Your task to perform on an android device: Go to display settings Image 0: 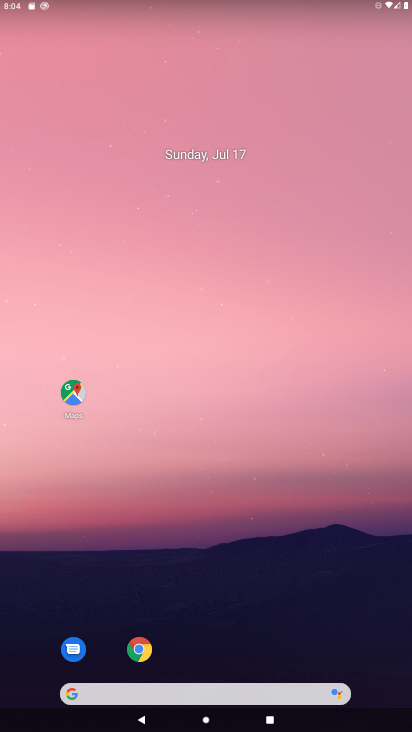
Step 0: drag from (197, 658) to (278, 0)
Your task to perform on an android device: Go to display settings Image 1: 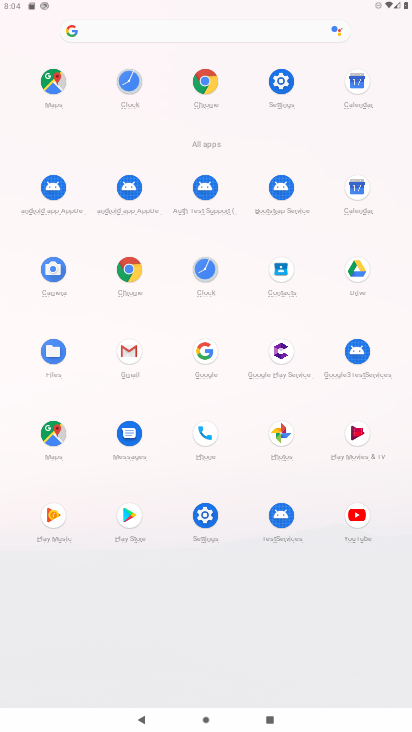
Step 1: click (272, 123)
Your task to perform on an android device: Go to display settings Image 2: 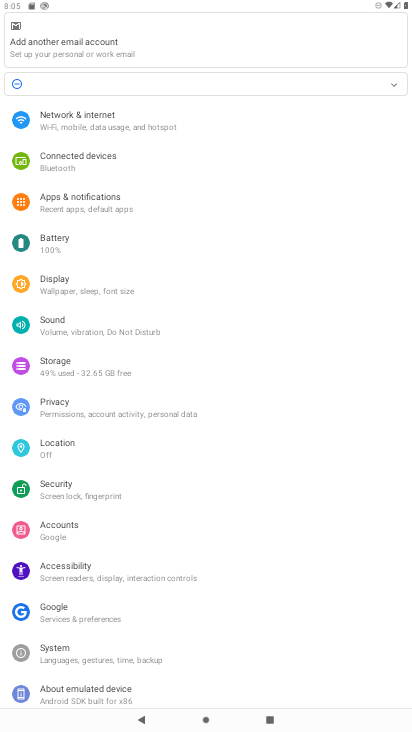
Step 2: click (64, 286)
Your task to perform on an android device: Go to display settings Image 3: 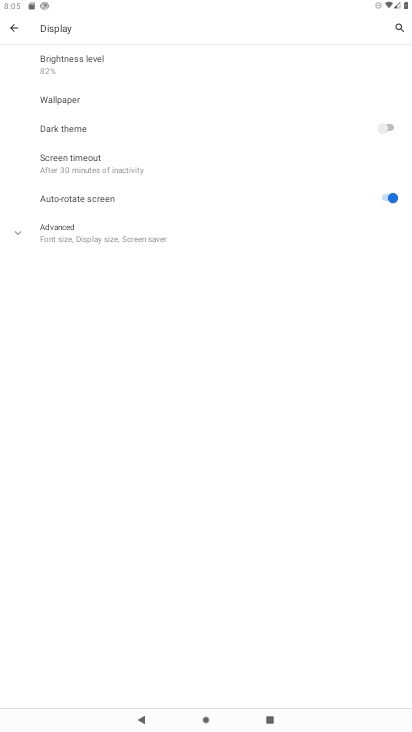
Step 3: click (57, 234)
Your task to perform on an android device: Go to display settings Image 4: 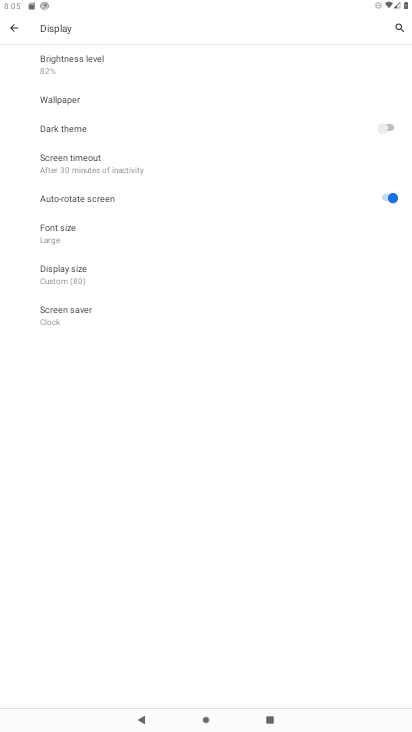
Step 4: task complete